Your task to perform on an android device: Go to Android settings Image 0: 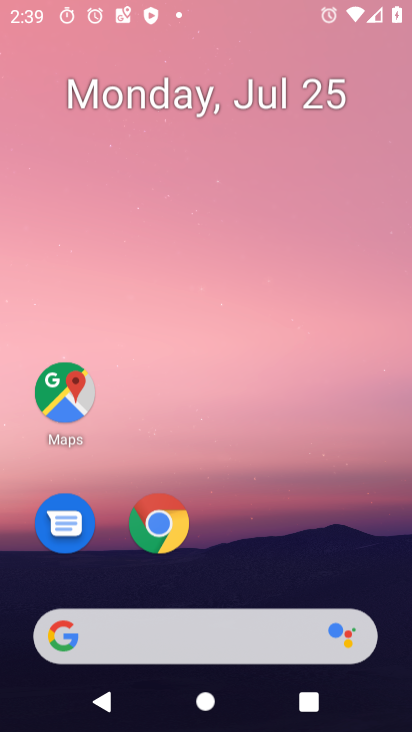
Step 0: press home button
Your task to perform on an android device: Go to Android settings Image 1: 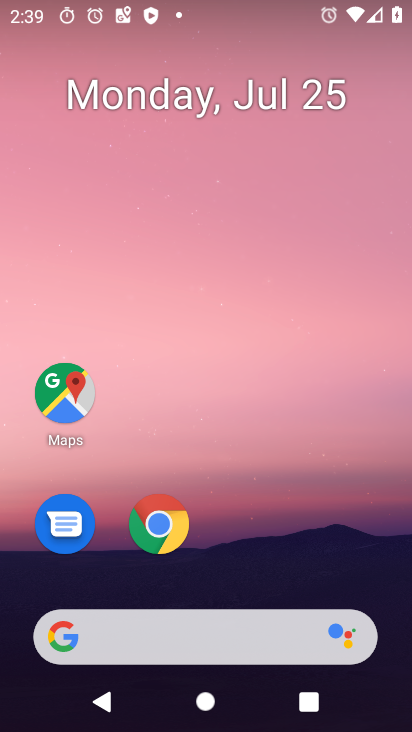
Step 1: drag from (228, 441) to (265, 60)
Your task to perform on an android device: Go to Android settings Image 2: 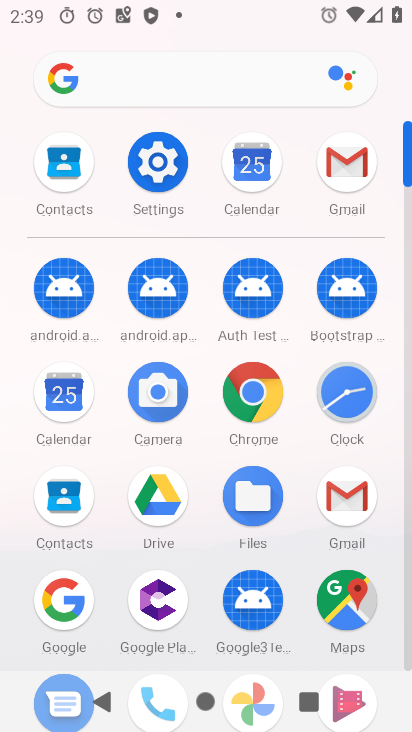
Step 2: click (153, 158)
Your task to perform on an android device: Go to Android settings Image 3: 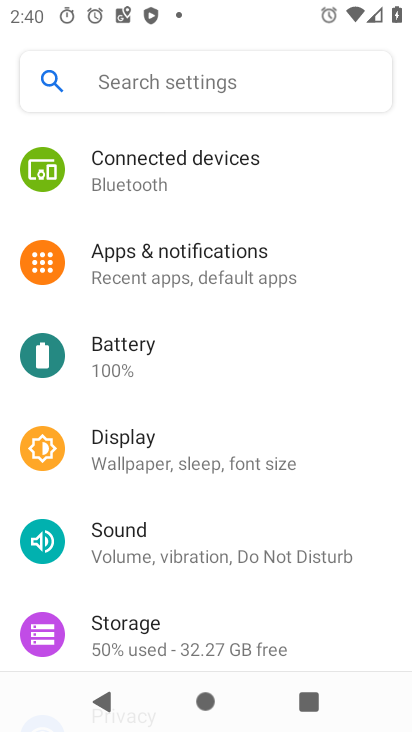
Step 3: task complete